Your task to perform on an android device: Open notification settings Image 0: 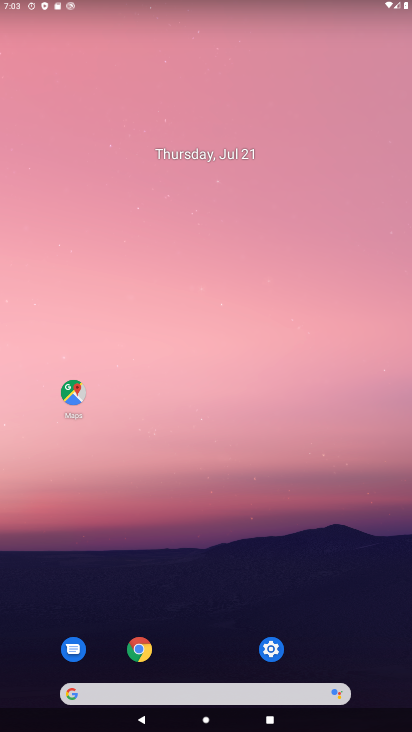
Step 0: click (263, 652)
Your task to perform on an android device: Open notification settings Image 1: 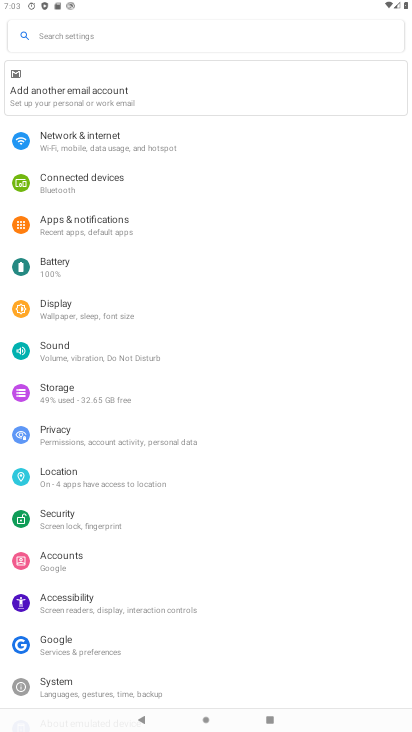
Step 1: click (54, 41)
Your task to perform on an android device: Open notification settings Image 2: 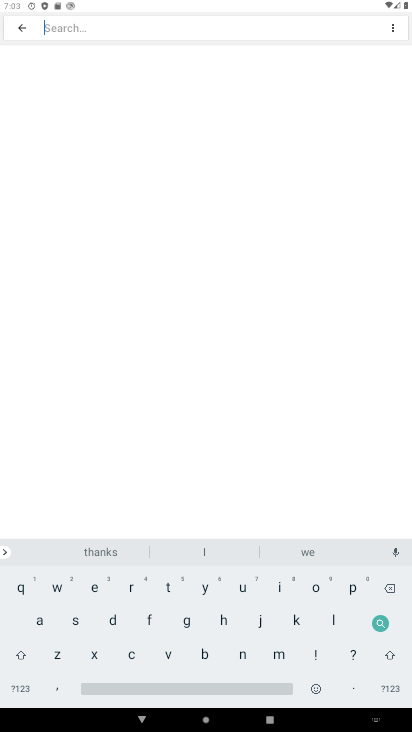
Step 2: click (241, 653)
Your task to perform on an android device: Open notification settings Image 3: 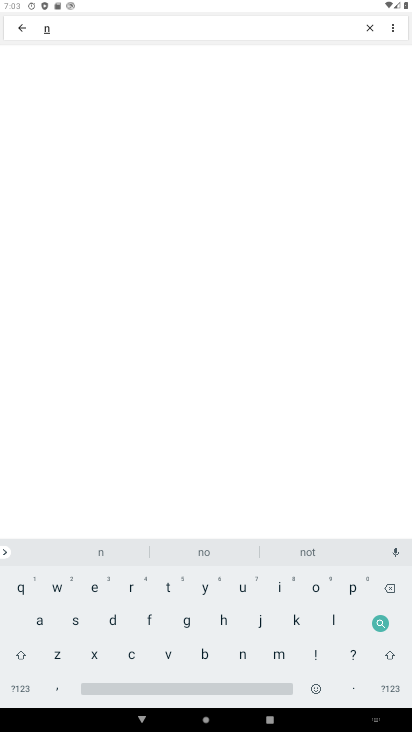
Step 3: click (314, 586)
Your task to perform on an android device: Open notification settings Image 4: 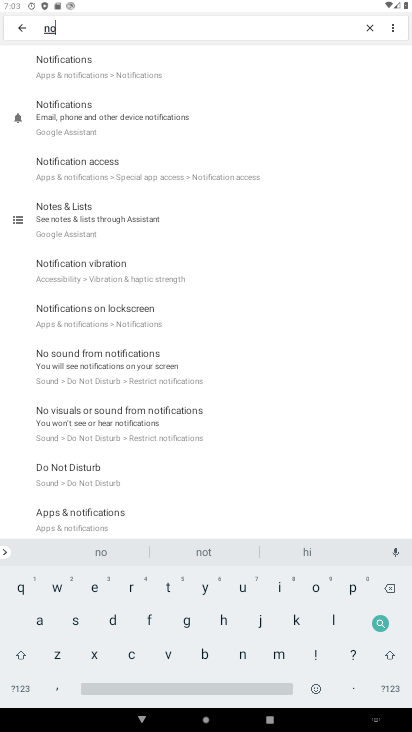
Step 4: click (115, 70)
Your task to perform on an android device: Open notification settings Image 5: 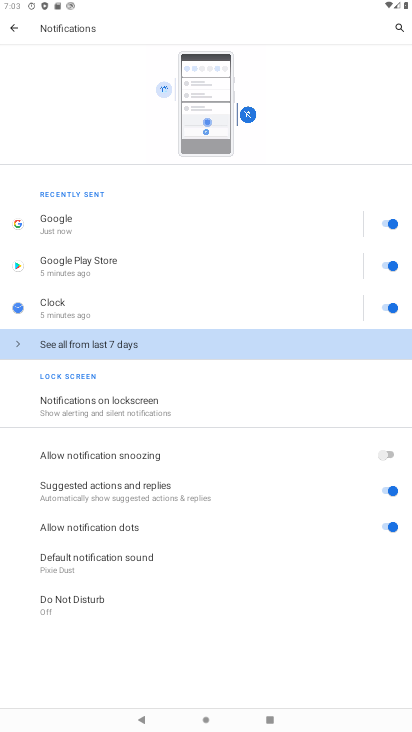
Step 5: click (85, 401)
Your task to perform on an android device: Open notification settings Image 6: 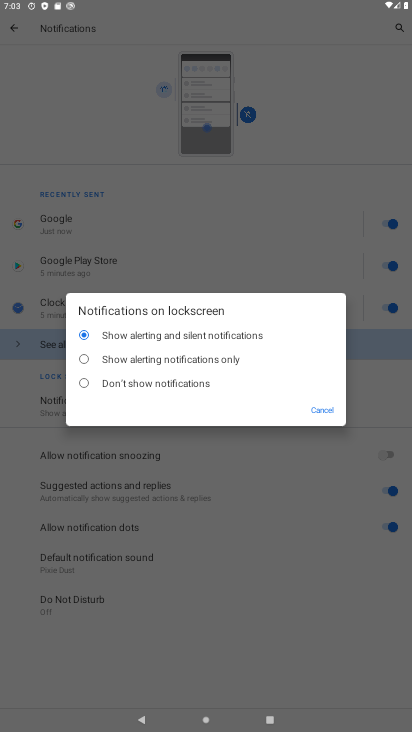
Step 6: task complete